Your task to perform on an android device: Open my contact list Image 0: 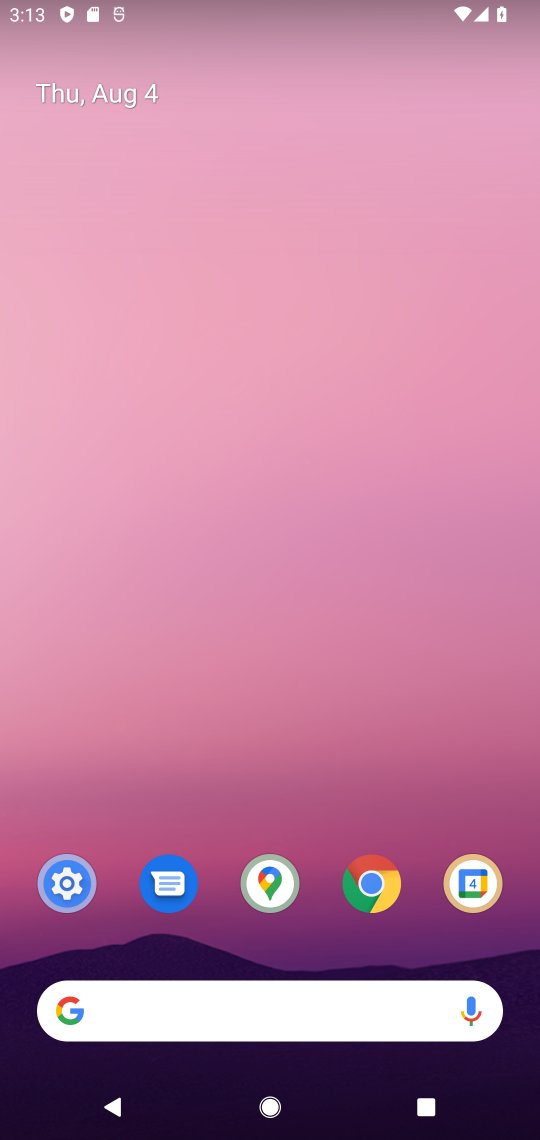
Step 0: drag from (415, 777) to (248, 131)
Your task to perform on an android device: Open my contact list Image 1: 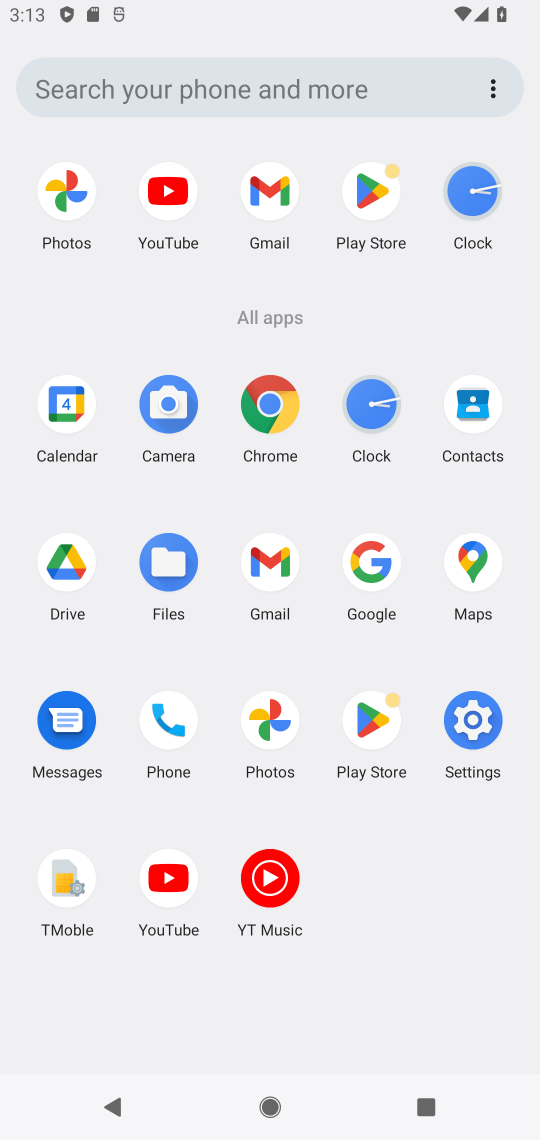
Step 1: click (466, 390)
Your task to perform on an android device: Open my contact list Image 2: 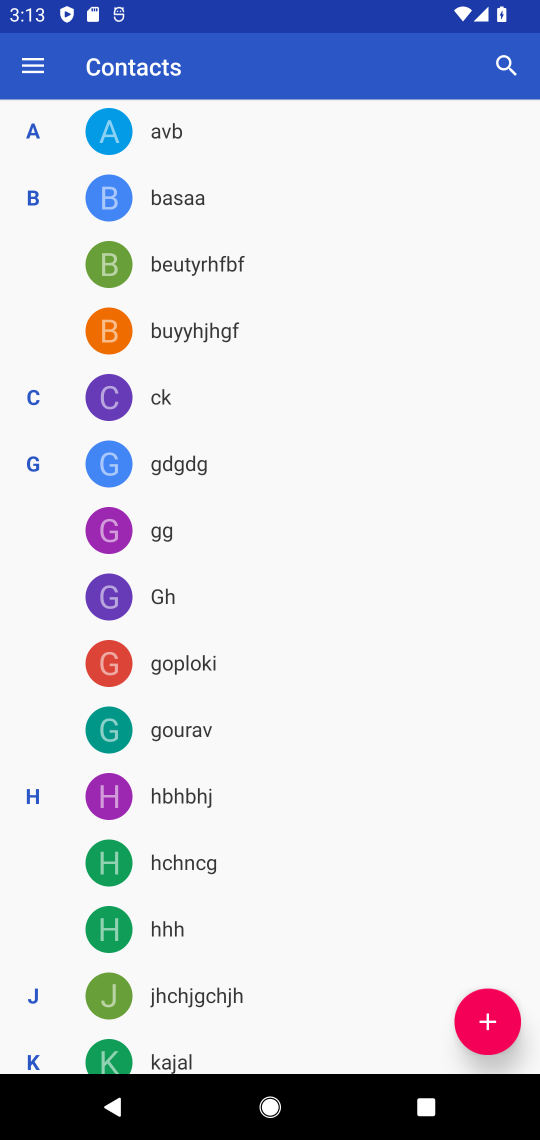
Step 2: task complete